Your task to perform on an android device: turn pop-ups off in chrome Image 0: 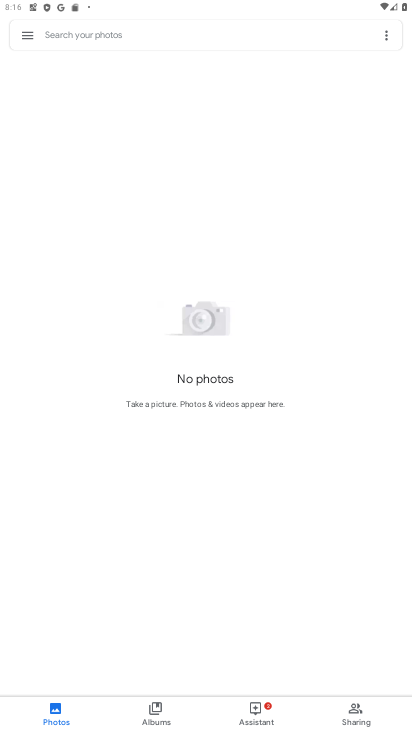
Step 0: press home button
Your task to perform on an android device: turn pop-ups off in chrome Image 1: 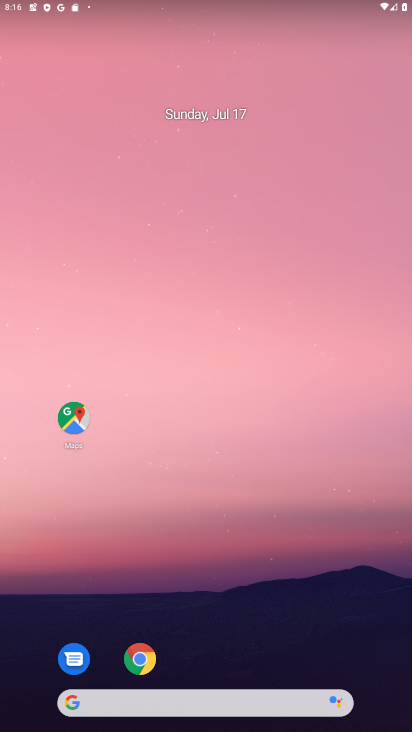
Step 1: click (232, 562)
Your task to perform on an android device: turn pop-ups off in chrome Image 2: 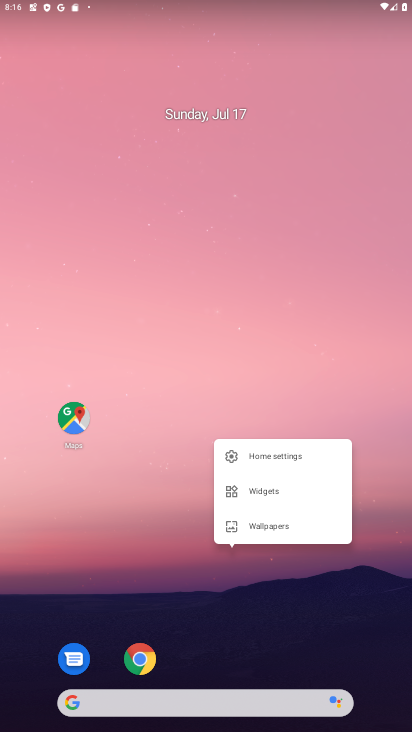
Step 2: click (148, 662)
Your task to perform on an android device: turn pop-ups off in chrome Image 3: 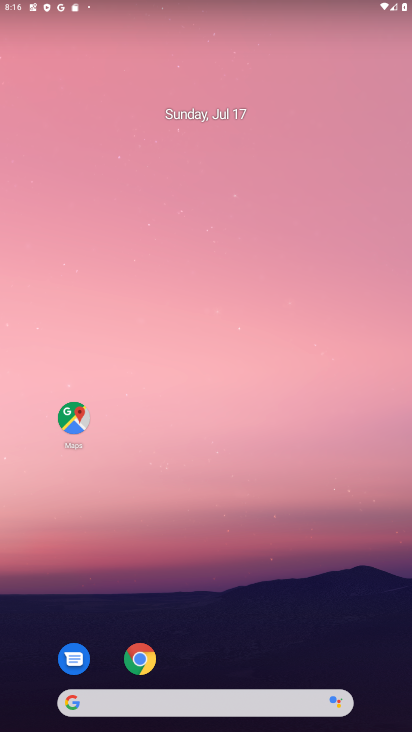
Step 3: click (148, 662)
Your task to perform on an android device: turn pop-ups off in chrome Image 4: 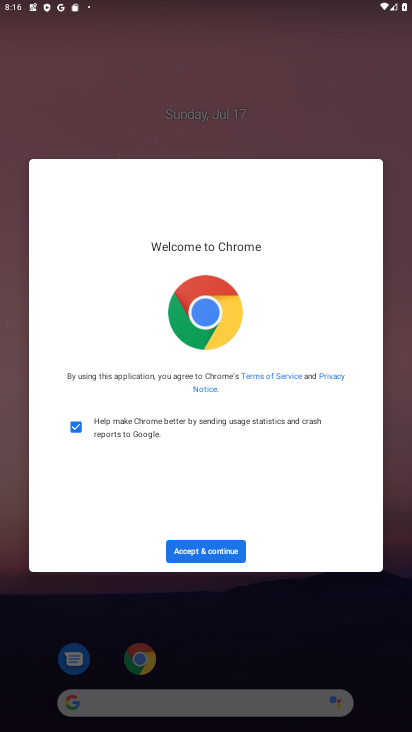
Step 4: click (219, 553)
Your task to perform on an android device: turn pop-ups off in chrome Image 5: 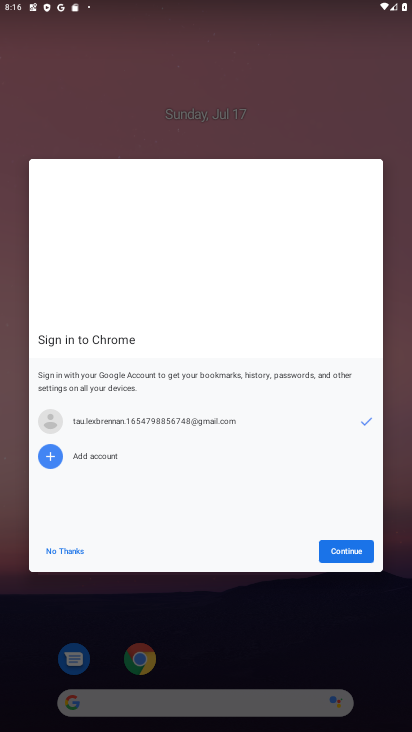
Step 5: click (343, 548)
Your task to perform on an android device: turn pop-ups off in chrome Image 6: 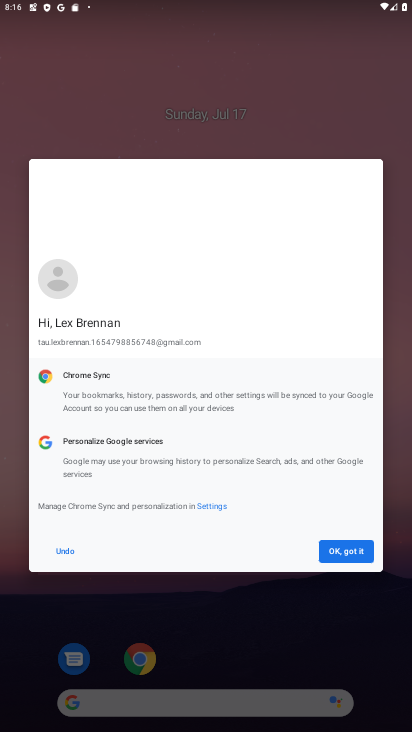
Step 6: click (327, 556)
Your task to perform on an android device: turn pop-ups off in chrome Image 7: 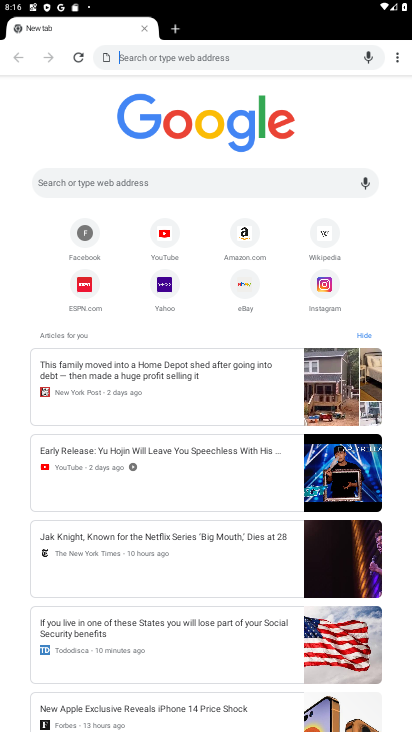
Step 7: click (394, 59)
Your task to perform on an android device: turn pop-ups off in chrome Image 8: 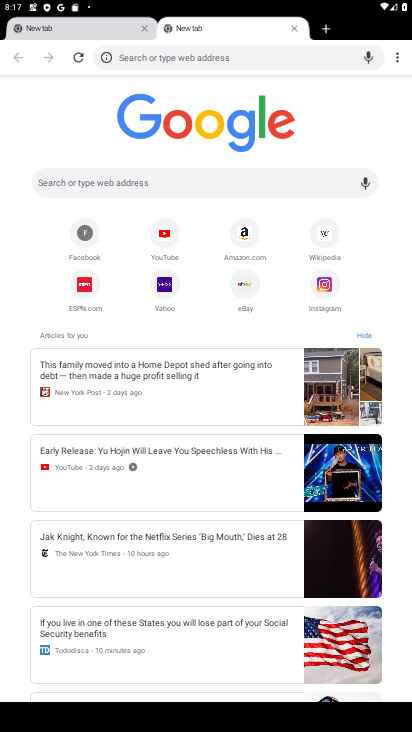
Step 8: click (394, 57)
Your task to perform on an android device: turn pop-ups off in chrome Image 9: 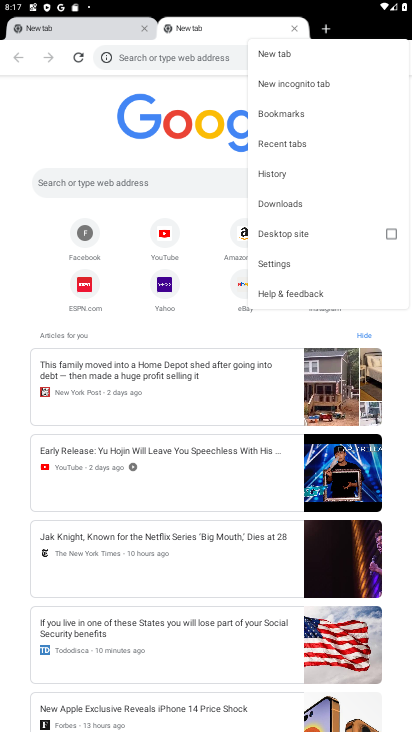
Step 9: click (280, 264)
Your task to perform on an android device: turn pop-ups off in chrome Image 10: 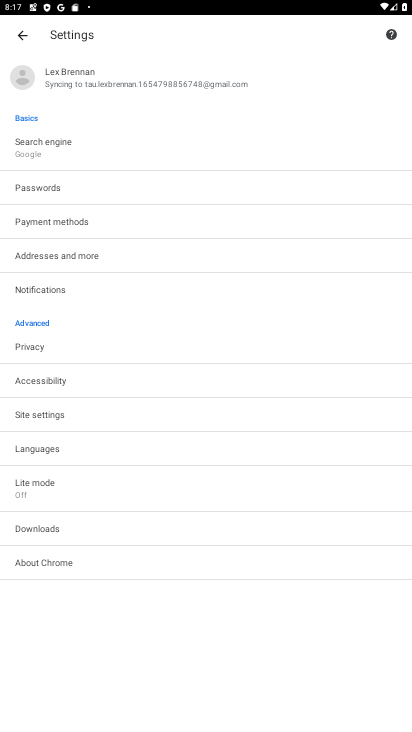
Step 10: click (21, 36)
Your task to perform on an android device: turn pop-ups off in chrome Image 11: 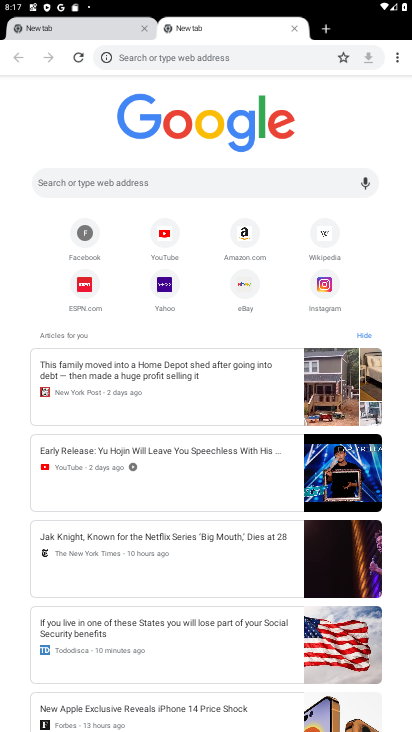
Step 11: task complete